Your task to perform on an android device: Open display settings Image 0: 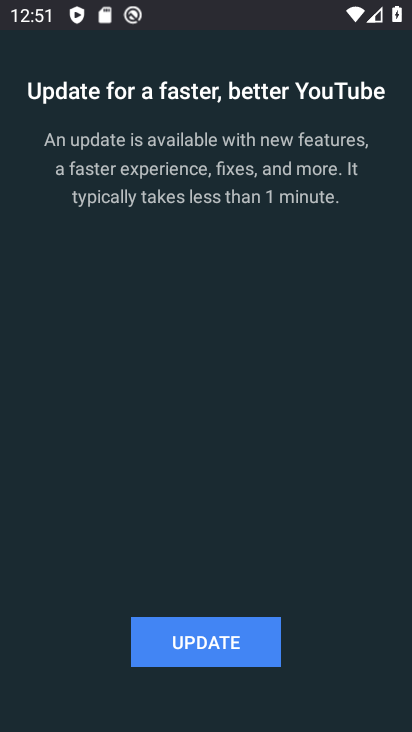
Step 0: press home button
Your task to perform on an android device: Open display settings Image 1: 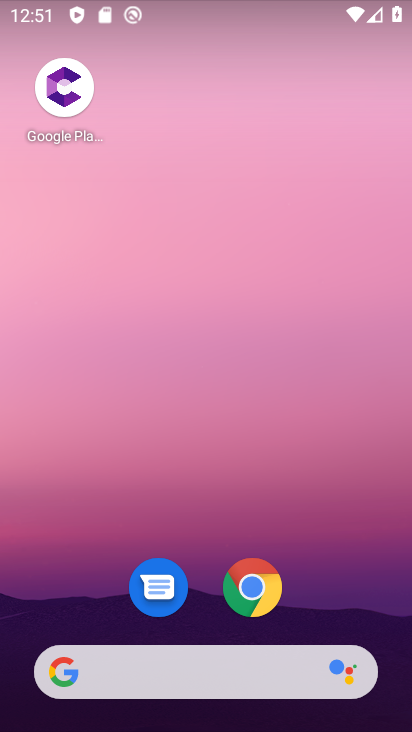
Step 1: drag from (341, 575) to (220, 30)
Your task to perform on an android device: Open display settings Image 2: 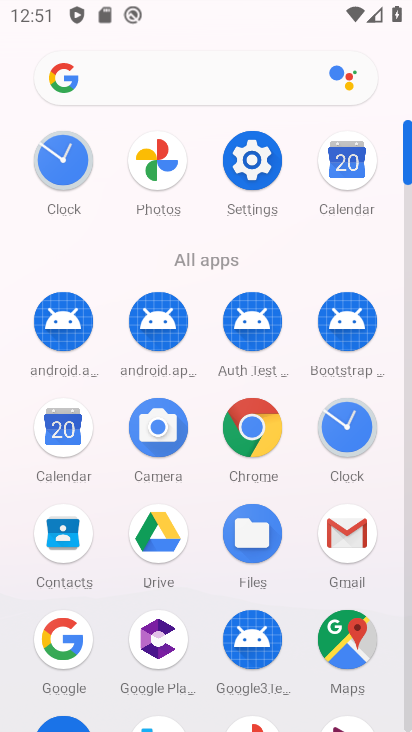
Step 2: click (258, 158)
Your task to perform on an android device: Open display settings Image 3: 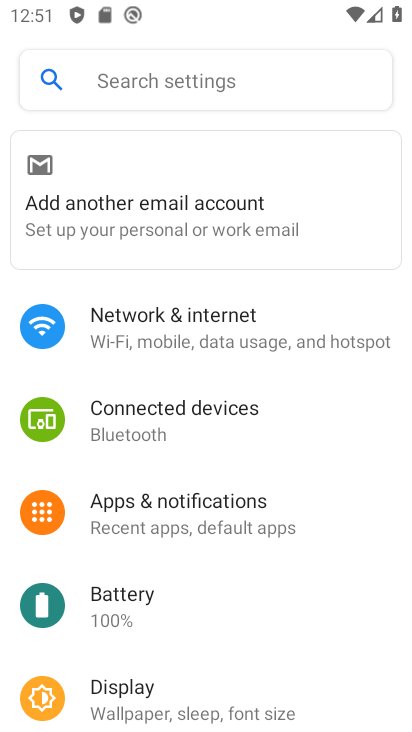
Step 3: click (125, 687)
Your task to perform on an android device: Open display settings Image 4: 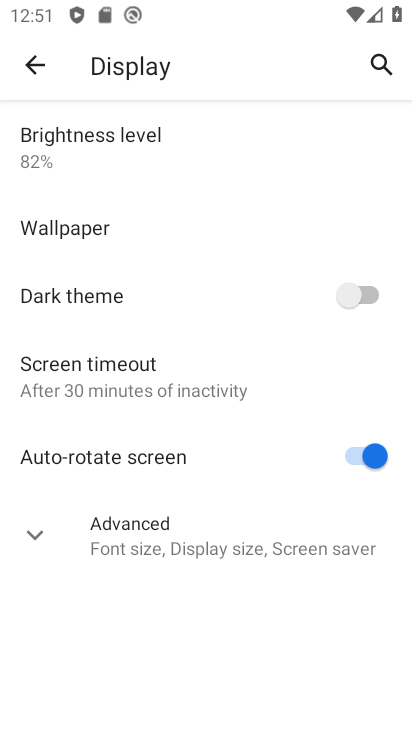
Step 4: task complete